Your task to perform on an android device: check the backup settings in the google photos Image 0: 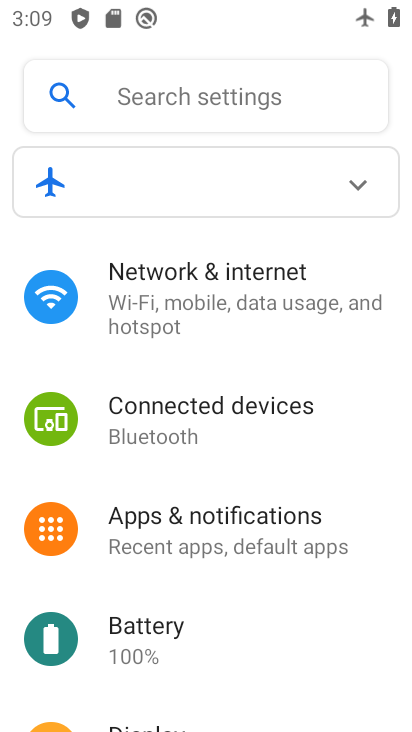
Step 0: press home button
Your task to perform on an android device: check the backup settings in the google photos Image 1: 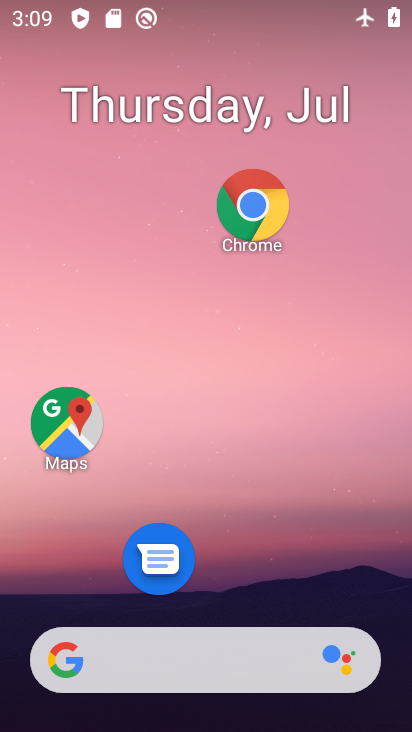
Step 1: drag from (280, 635) to (327, 178)
Your task to perform on an android device: check the backup settings in the google photos Image 2: 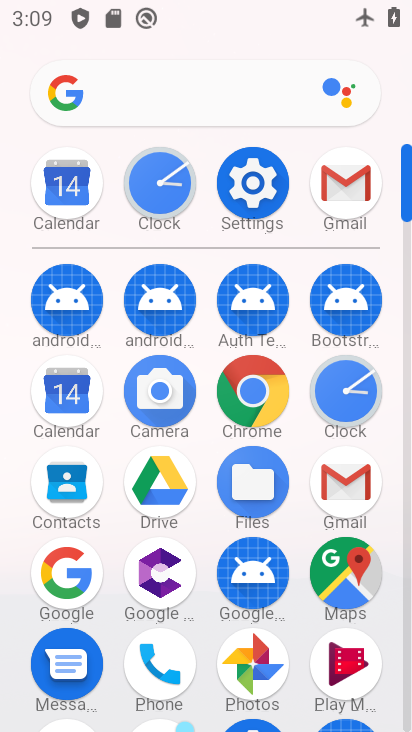
Step 2: click (248, 654)
Your task to perform on an android device: check the backup settings in the google photos Image 3: 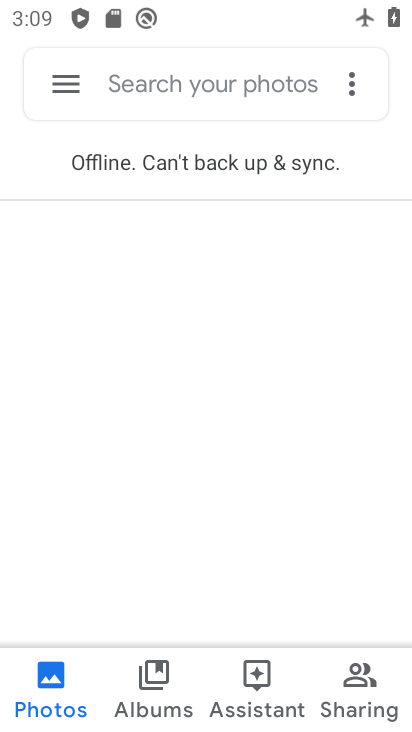
Step 3: click (69, 94)
Your task to perform on an android device: check the backup settings in the google photos Image 4: 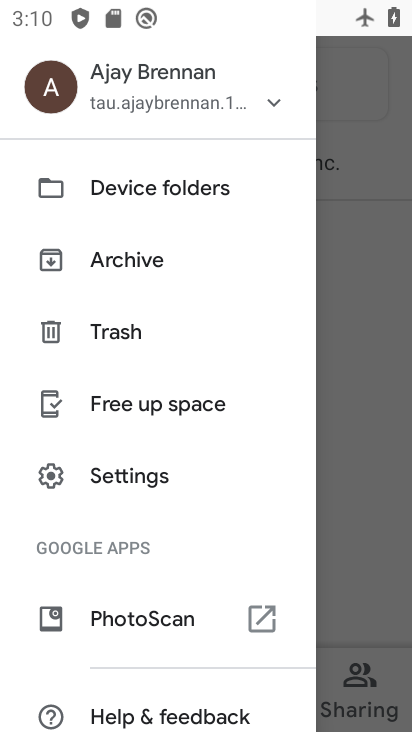
Step 4: click (100, 478)
Your task to perform on an android device: check the backup settings in the google photos Image 5: 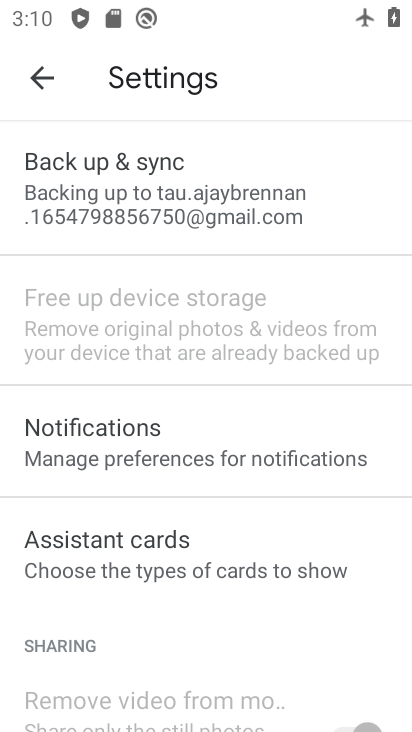
Step 5: click (240, 160)
Your task to perform on an android device: check the backup settings in the google photos Image 6: 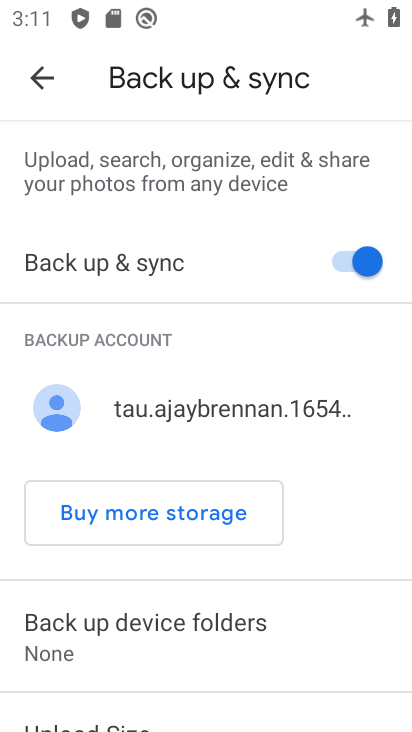
Step 6: task complete